Your task to perform on an android device: Open calendar and show me the third week of next month Image 0: 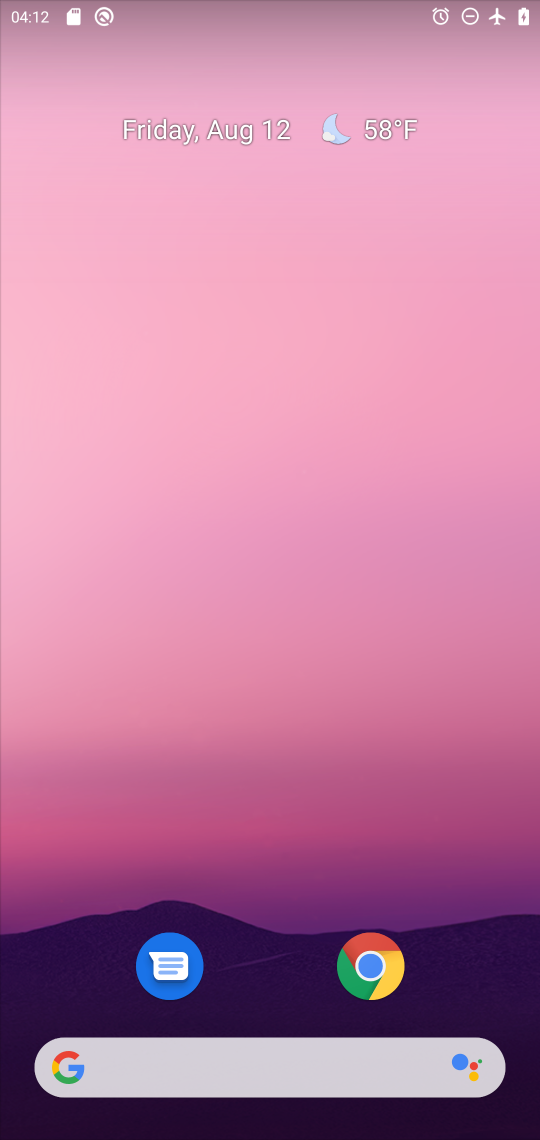
Step 0: drag from (253, 954) to (364, 70)
Your task to perform on an android device: Open calendar and show me the third week of next month Image 1: 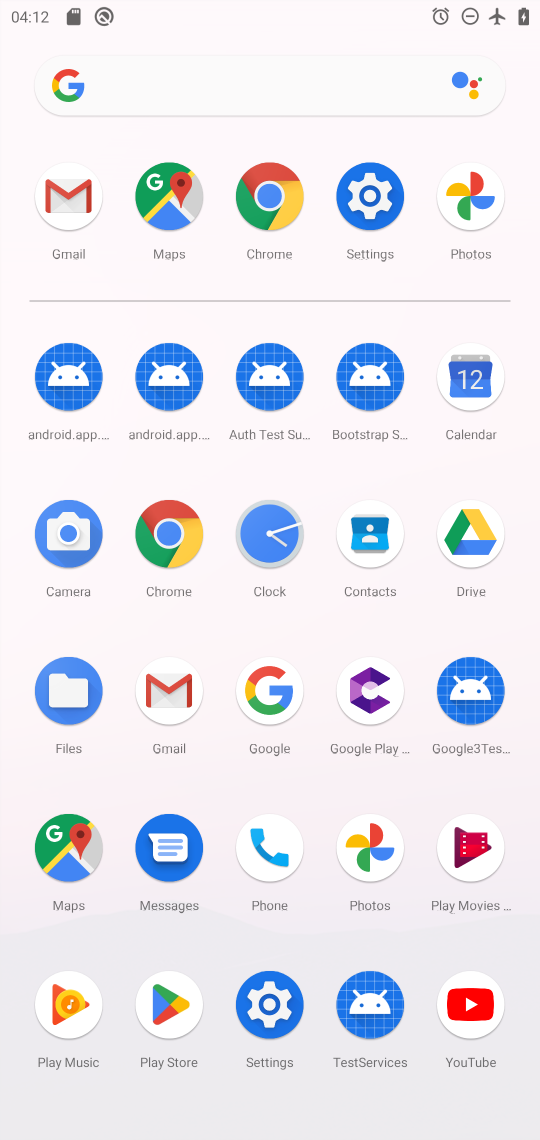
Step 1: click (456, 393)
Your task to perform on an android device: Open calendar and show me the third week of next month Image 2: 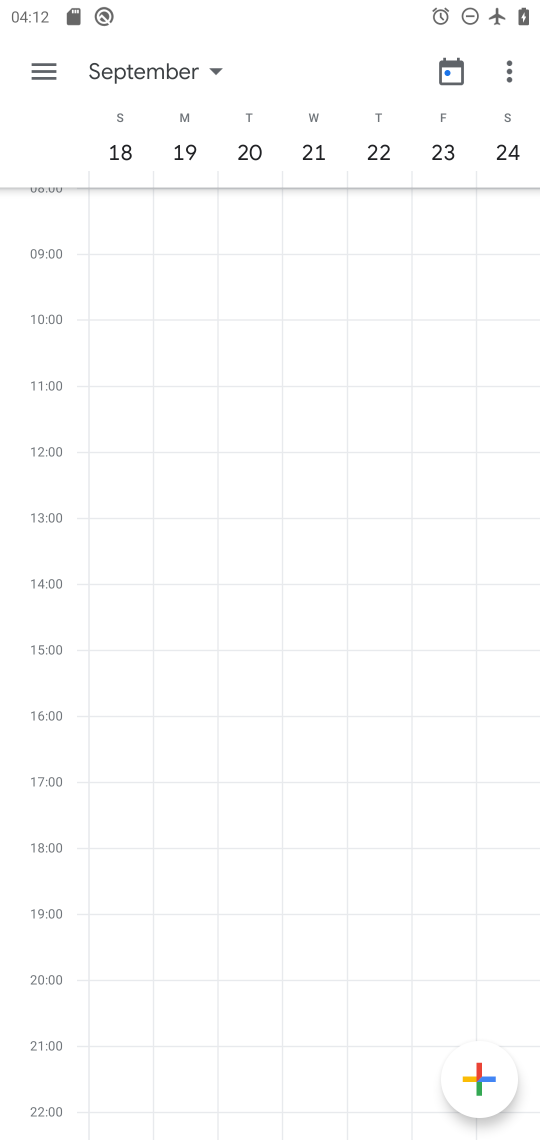
Step 2: click (168, 58)
Your task to perform on an android device: Open calendar and show me the third week of next month Image 3: 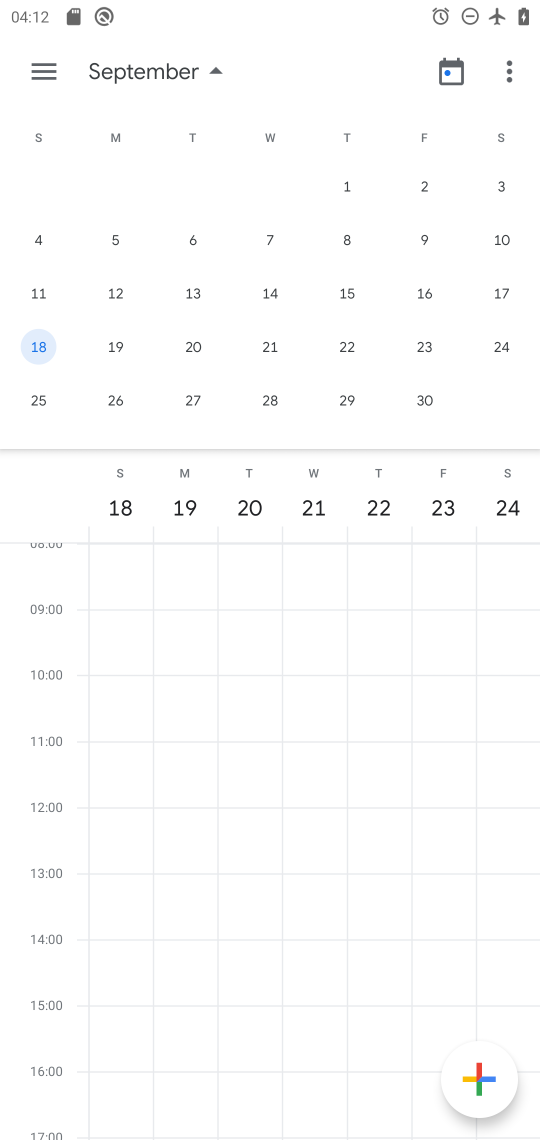
Step 3: task complete